Your task to perform on an android device: manage bookmarks in the chrome app Image 0: 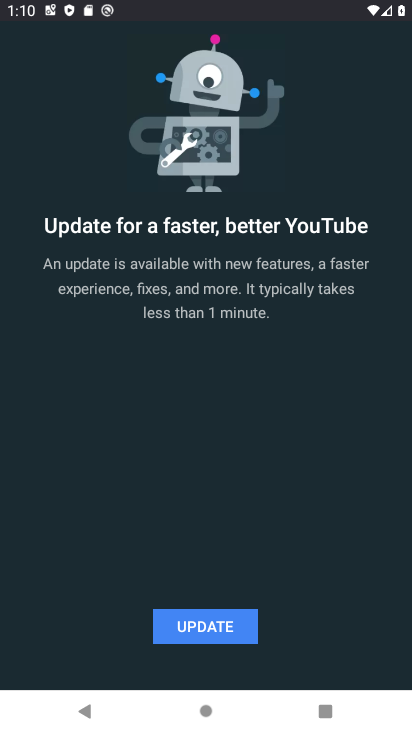
Step 0: press back button
Your task to perform on an android device: manage bookmarks in the chrome app Image 1: 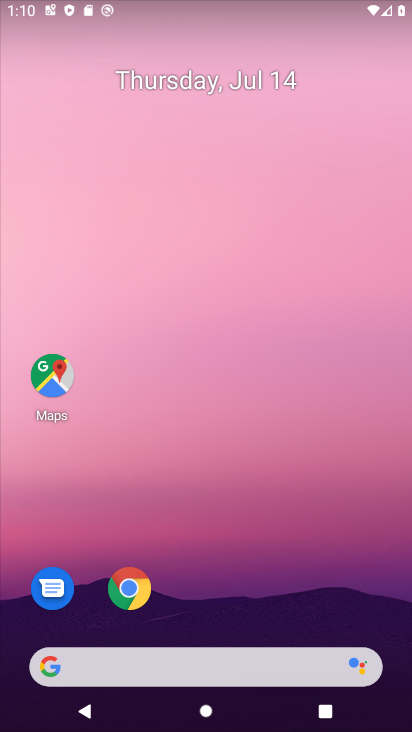
Step 1: click (143, 164)
Your task to perform on an android device: manage bookmarks in the chrome app Image 2: 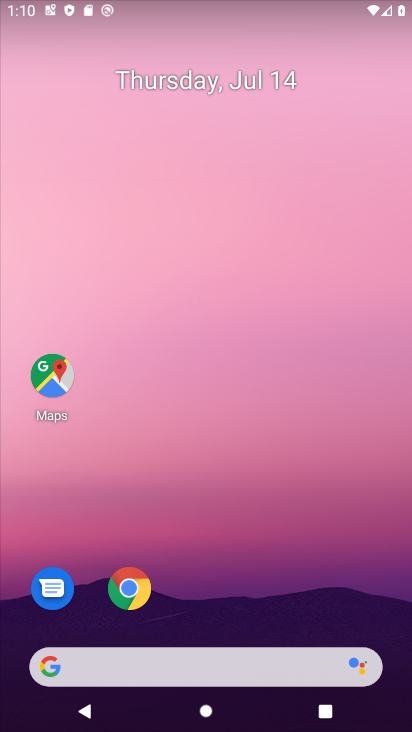
Step 2: drag from (312, 507) to (144, 0)
Your task to perform on an android device: manage bookmarks in the chrome app Image 3: 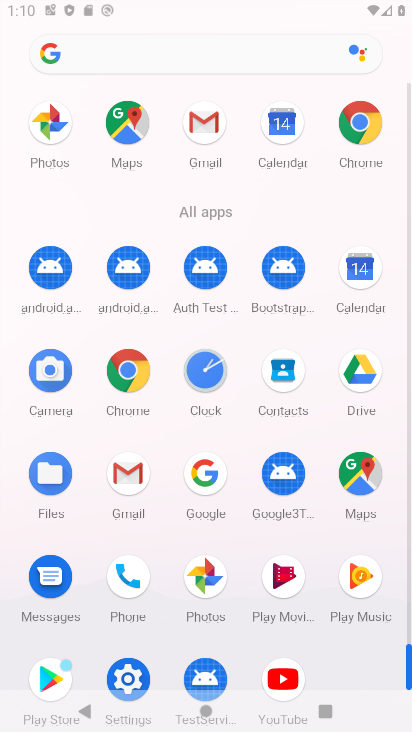
Step 3: drag from (289, 415) to (96, 39)
Your task to perform on an android device: manage bookmarks in the chrome app Image 4: 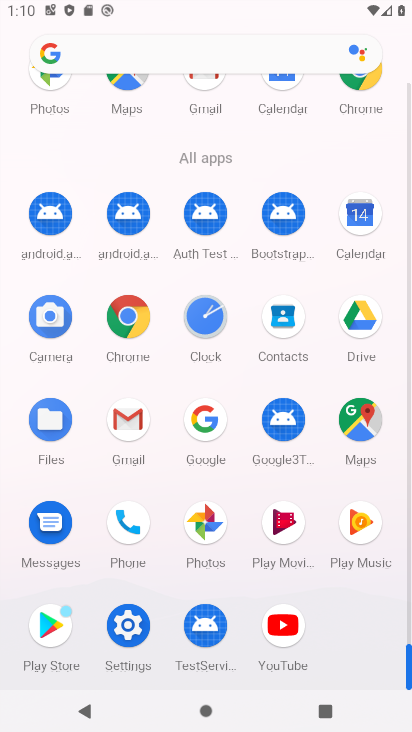
Step 4: click (141, 315)
Your task to perform on an android device: manage bookmarks in the chrome app Image 5: 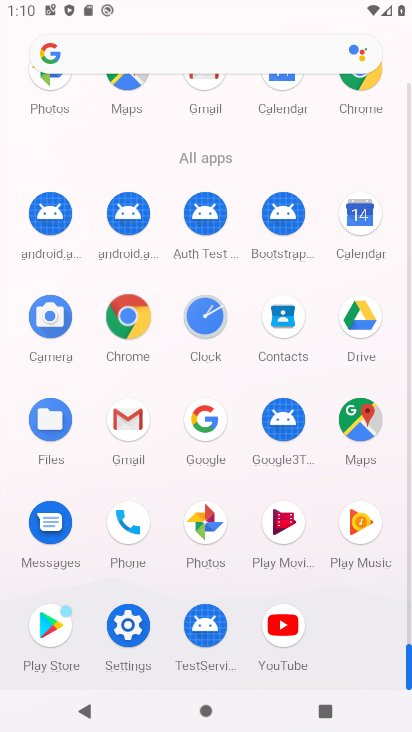
Step 5: click (141, 315)
Your task to perform on an android device: manage bookmarks in the chrome app Image 6: 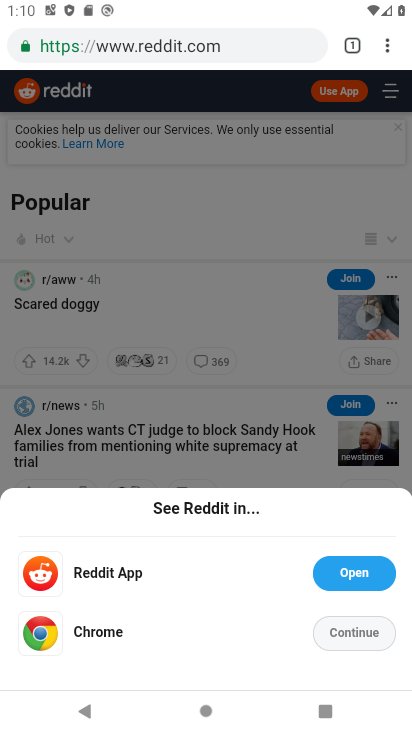
Step 6: click (386, 37)
Your task to perform on an android device: manage bookmarks in the chrome app Image 7: 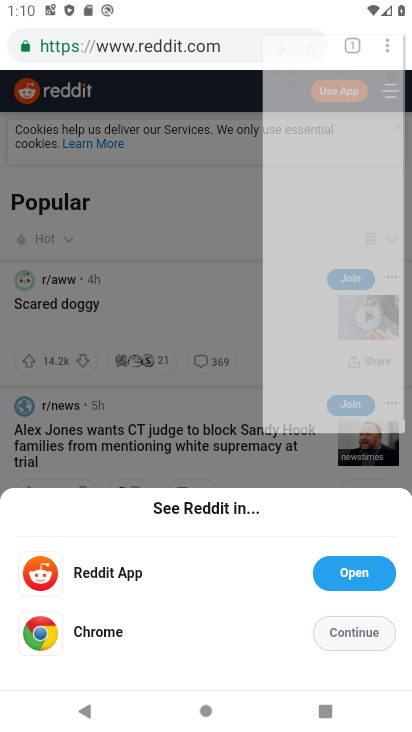
Step 7: click (386, 37)
Your task to perform on an android device: manage bookmarks in the chrome app Image 8: 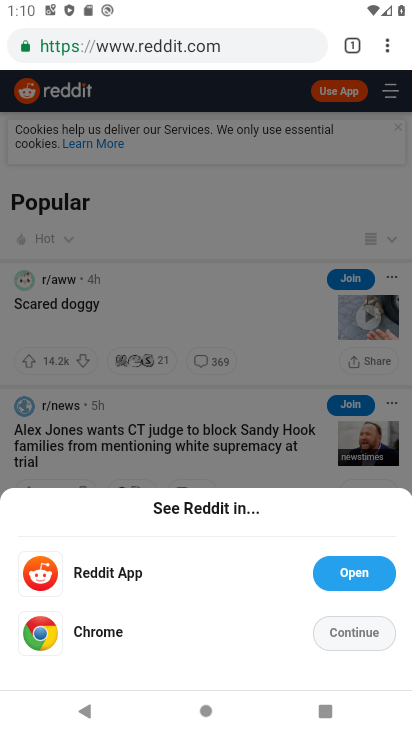
Step 8: click (386, 37)
Your task to perform on an android device: manage bookmarks in the chrome app Image 9: 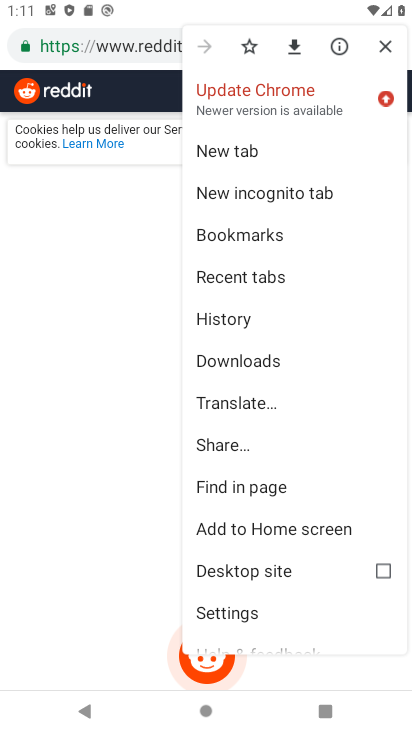
Step 9: click (237, 245)
Your task to perform on an android device: manage bookmarks in the chrome app Image 10: 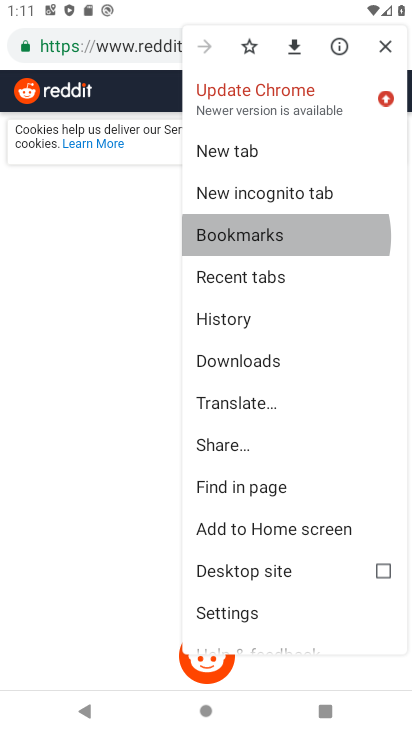
Step 10: click (237, 245)
Your task to perform on an android device: manage bookmarks in the chrome app Image 11: 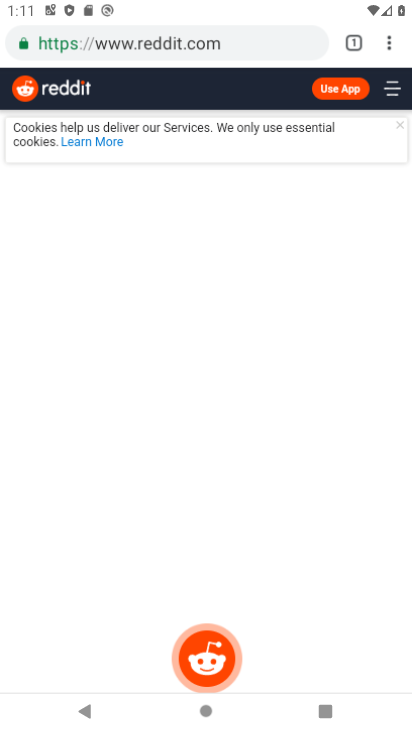
Step 11: click (237, 244)
Your task to perform on an android device: manage bookmarks in the chrome app Image 12: 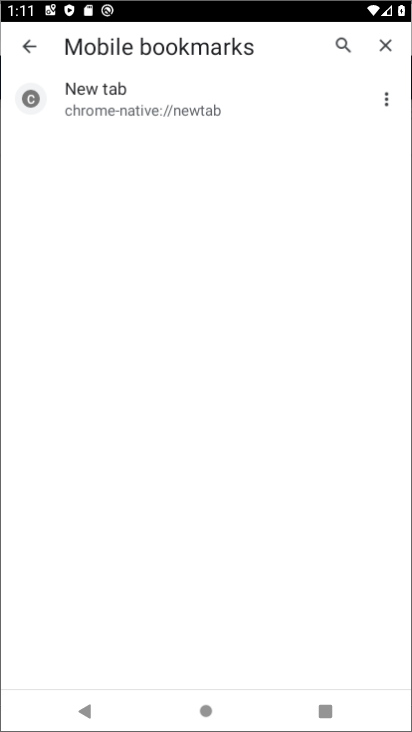
Step 12: click (238, 243)
Your task to perform on an android device: manage bookmarks in the chrome app Image 13: 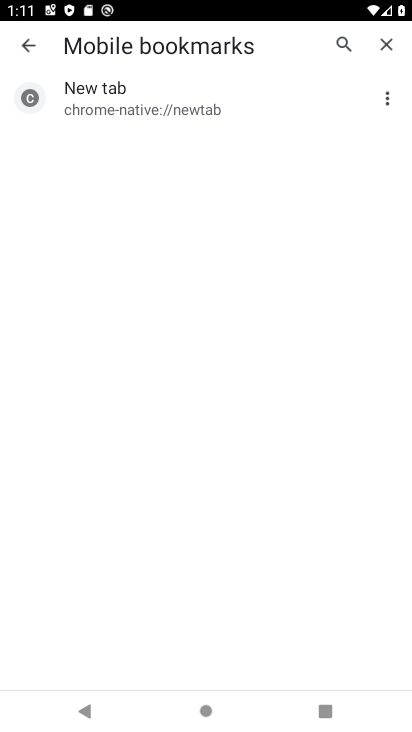
Step 13: task complete